Your task to perform on an android device: add a contact in the contacts app Image 0: 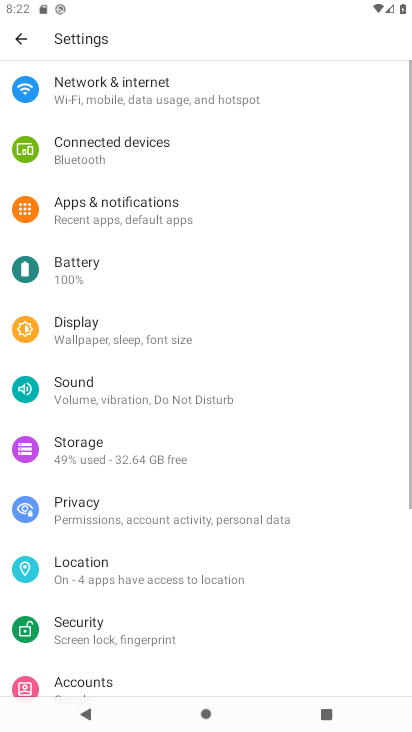
Step 0: press home button
Your task to perform on an android device: add a contact in the contacts app Image 1: 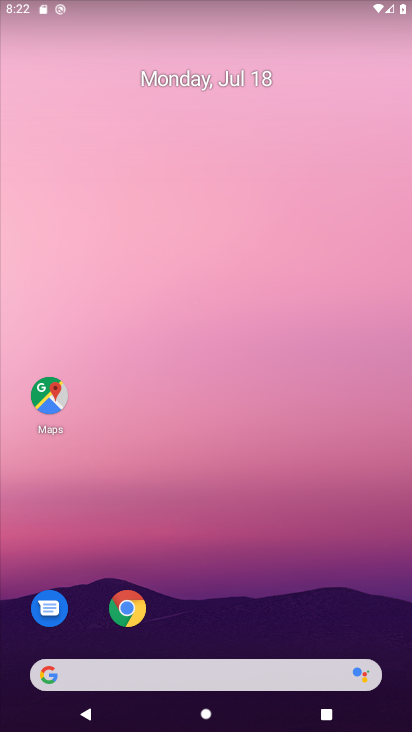
Step 1: drag from (196, 673) to (258, 283)
Your task to perform on an android device: add a contact in the contacts app Image 2: 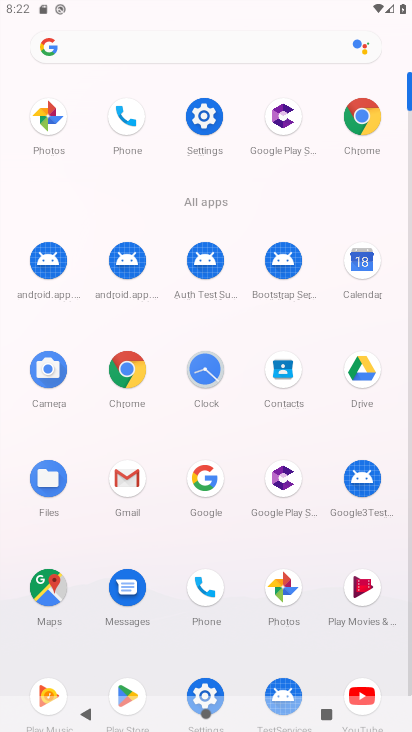
Step 2: click (283, 371)
Your task to perform on an android device: add a contact in the contacts app Image 3: 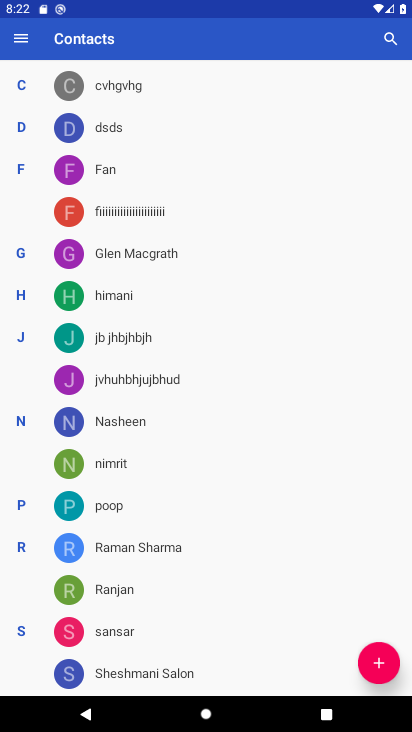
Step 3: click (378, 664)
Your task to perform on an android device: add a contact in the contacts app Image 4: 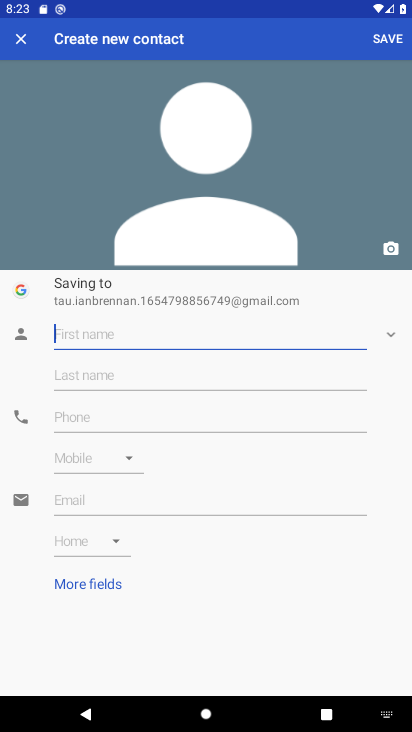
Step 4: type "Anshul"
Your task to perform on an android device: add a contact in the contacts app Image 5: 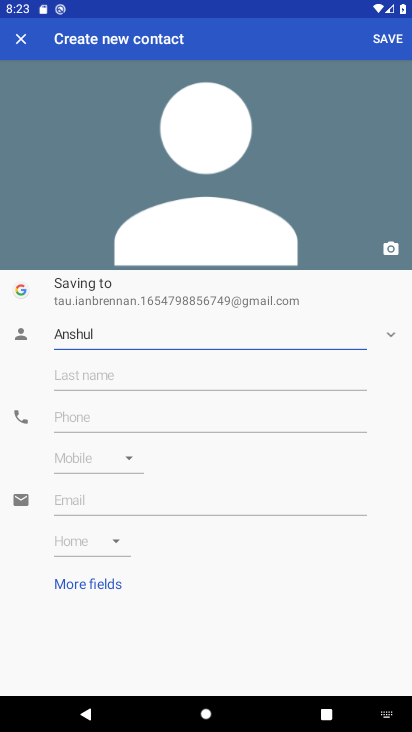
Step 5: click (185, 377)
Your task to perform on an android device: add a contact in the contacts app Image 6: 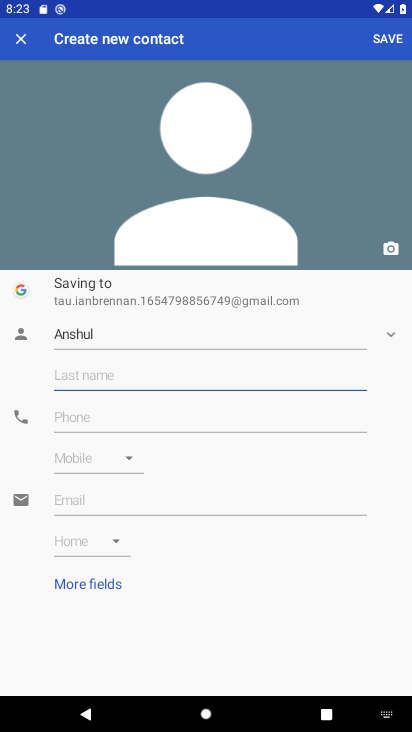
Step 6: type "Shukla"
Your task to perform on an android device: add a contact in the contacts app Image 7: 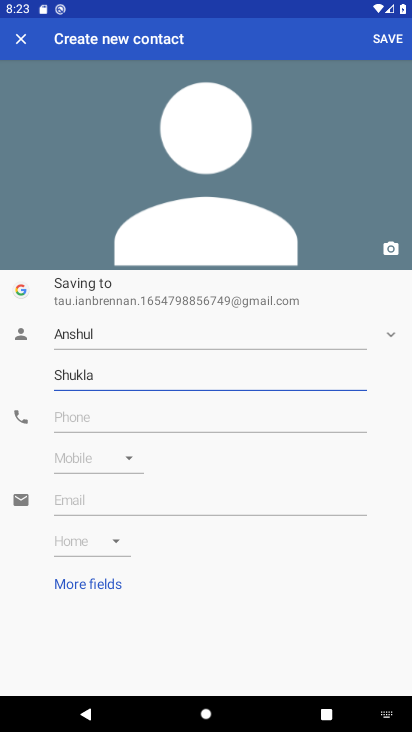
Step 7: click (152, 421)
Your task to perform on an android device: add a contact in the contacts app Image 8: 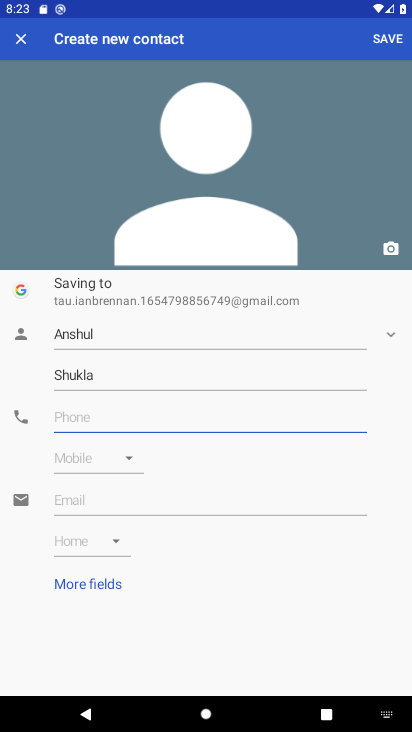
Step 8: type "09988776655"
Your task to perform on an android device: add a contact in the contacts app Image 9: 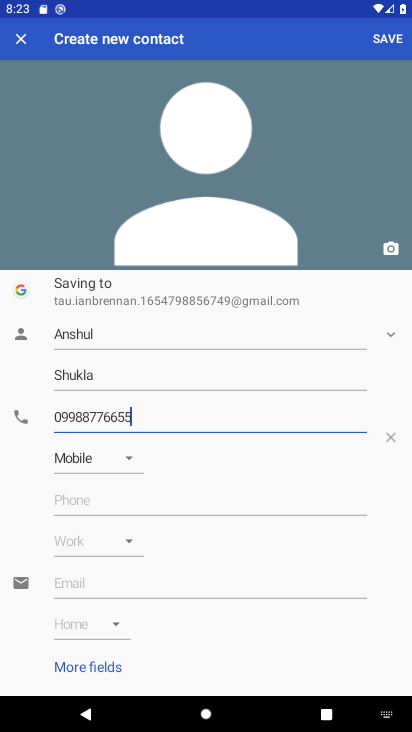
Step 9: click (403, 40)
Your task to perform on an android device: add a contact in the contacts app Image 10: 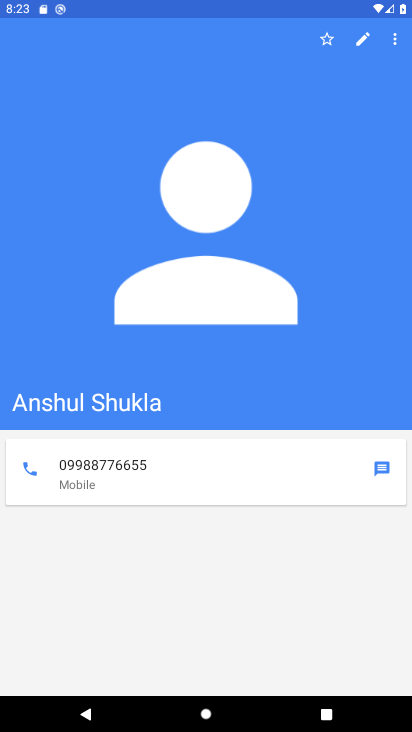
Step 10: task complete